Your task to perform on an android device: toggle data saver in the chrome app Image 0: 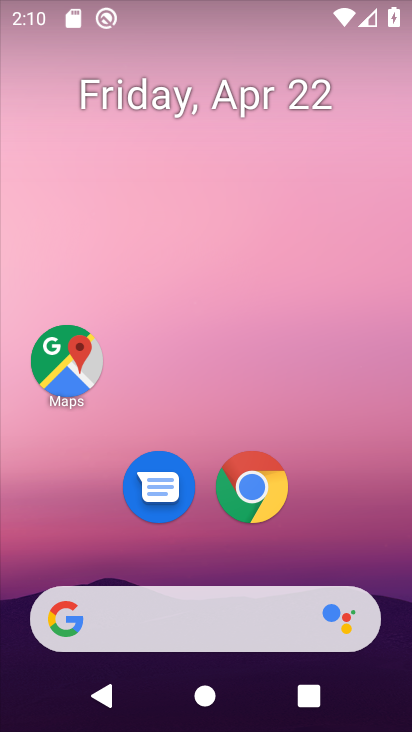
Step 0: drag from (284, 564) to (302, 251)
Your task to perform on an android device: toggle data saver in the chrome app Image 1: 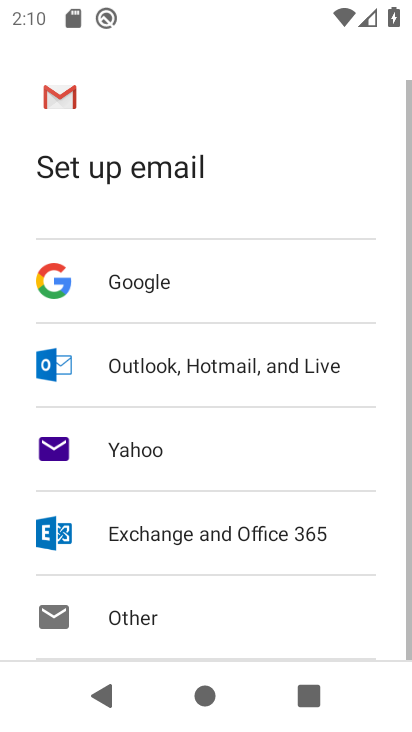
Step 1: press home button
Your task to perform on an android device: toggle data saver in the chrome app Image 2: 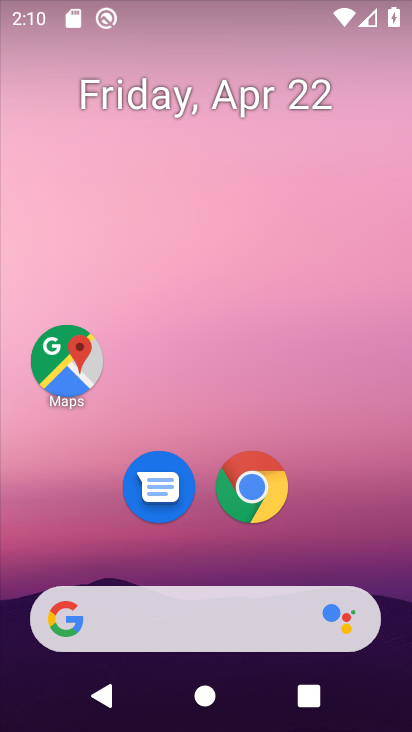
Step 2: click (253, 496)
Your task to perform on an android device: toggle data saver in the chrome app Image 3: 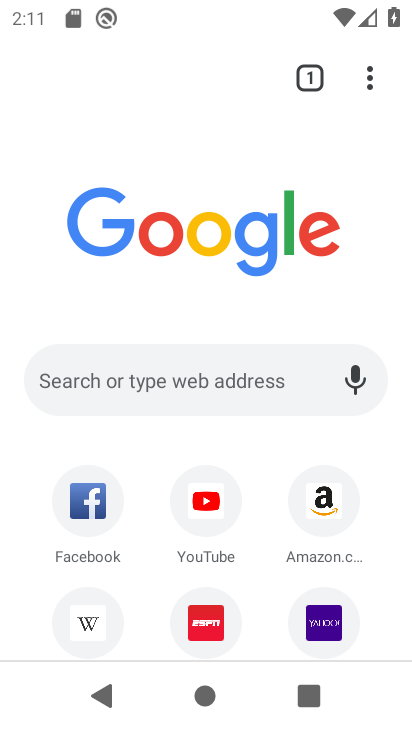
Step 3: click (369, 90)
Your task to perform on an android device: toggle data saver in the chrome app Image 4: 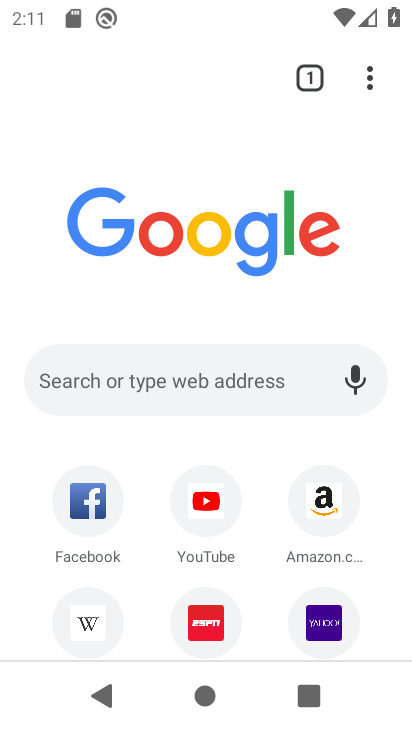
Step 4: click (369, 90)
Your task to perform on an android device: toggle data saver in the chrome app Image 5: 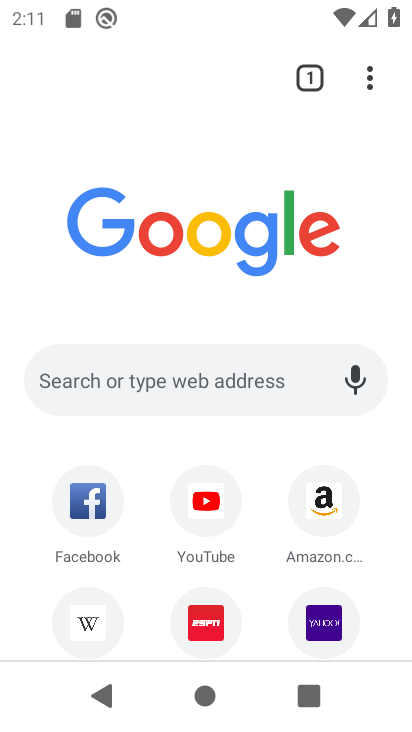
Step 5: click (371, 90)
Your task to perform on an android device: toggle data saver in the chrome app Image 6: 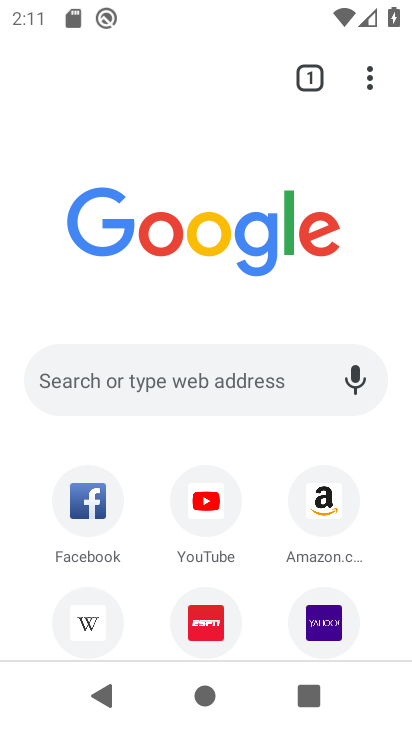
Step 6: click (373, 83)
Your task to perform on an android device: toggle data saver in the chrome app Image 7: 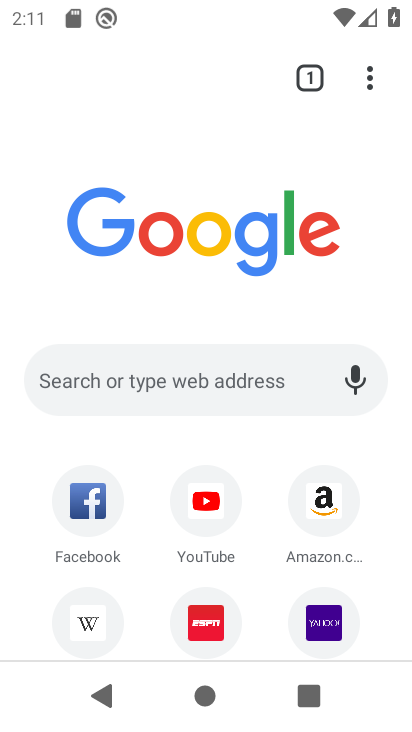
Step 7: click (373, 83)
Your task to perform on an android device: toggle data saver in the chrome app Image 8: 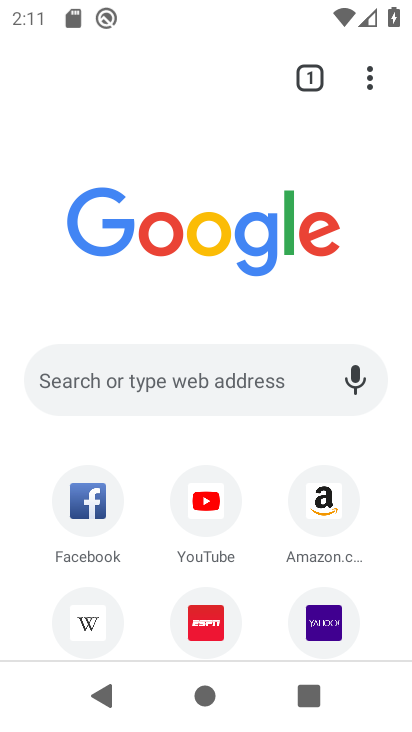
Step 8: click (367, 93)
Your task to perform on an android device: toggle data saver in the chrome app Image 9: 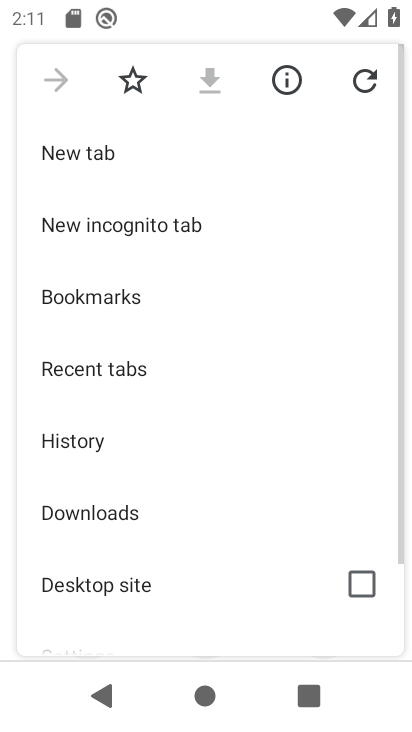
Step 9: drag from (189, 492) to (225, 180)
Your task to perform on an android device: toggle data saver in the chrome app Image 10: 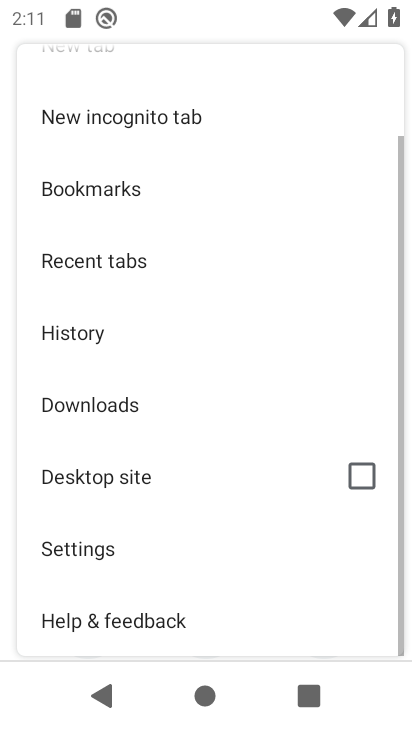
Step 10: click (116, 551)
Your task to perform on an android device: toggle data saver in the chrome app Image 11: 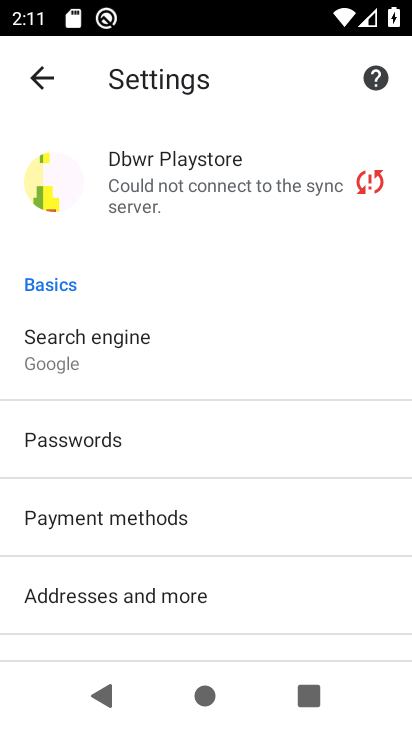
Step 11: drag from (228, 585) to (202, 203)
Your task to perform on an android device: toggle data saver in the chrome app Image 12: 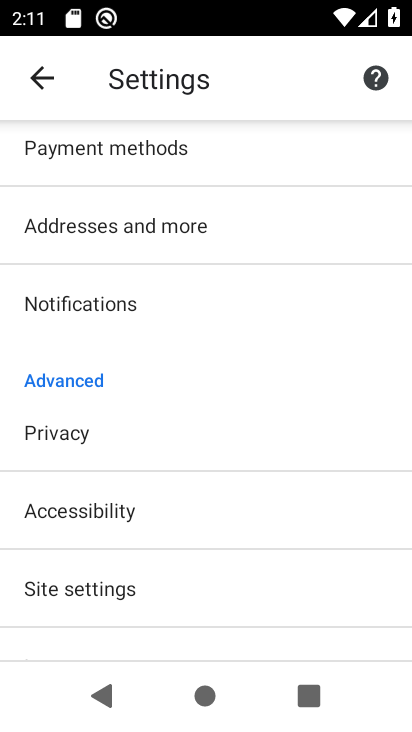
Step 12: drag from (182, 601) to (145, 413)
Your task to perform on an android device: toggle data saver in the chrome app Image 13: 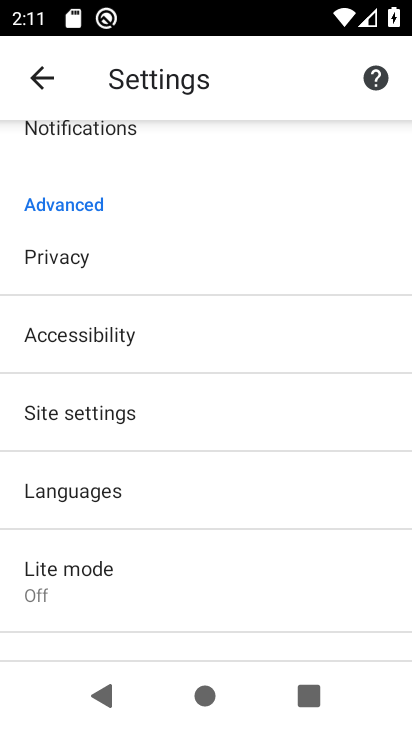
Step 13: click (115, 578)
Your task to perform on an android device: toggle data saver in the chrome app Image 14: 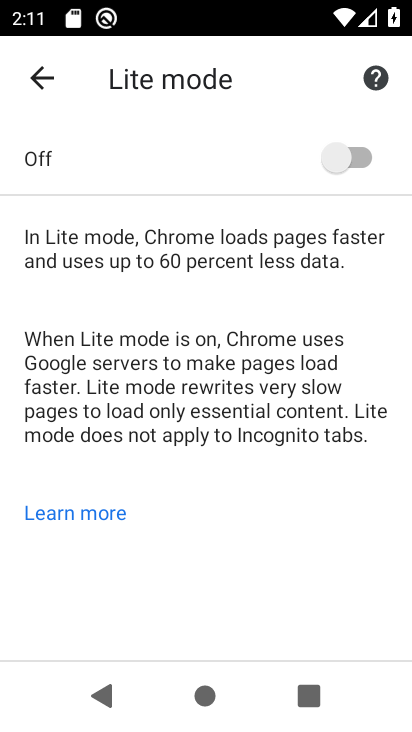
Step 14: click (349, 171)
Your task to perform on an android device: toggle data saver in the chrome app Image 15: 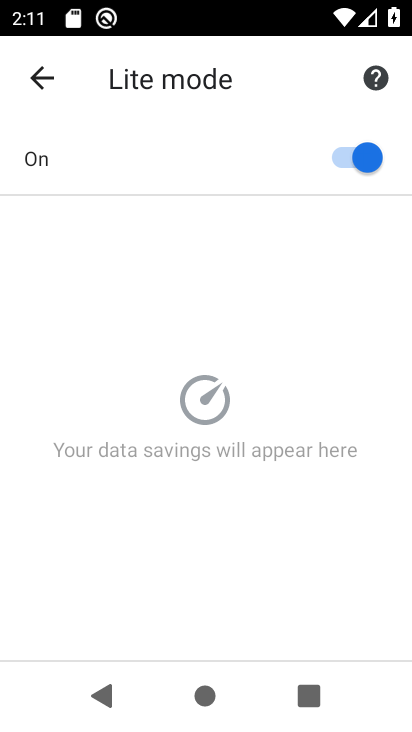
Step 15: task complete